Your task to perform on an android device: turn off picture-in-picture Image 0: 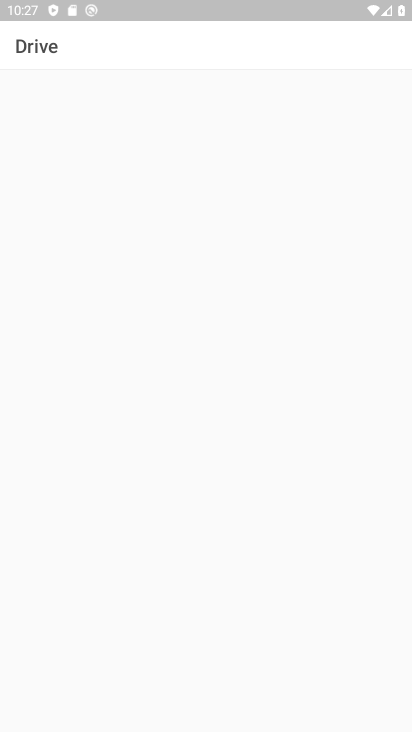
Step 0: press home button
Your task to perform on an android device: turn off picture-in-picture Image 1: 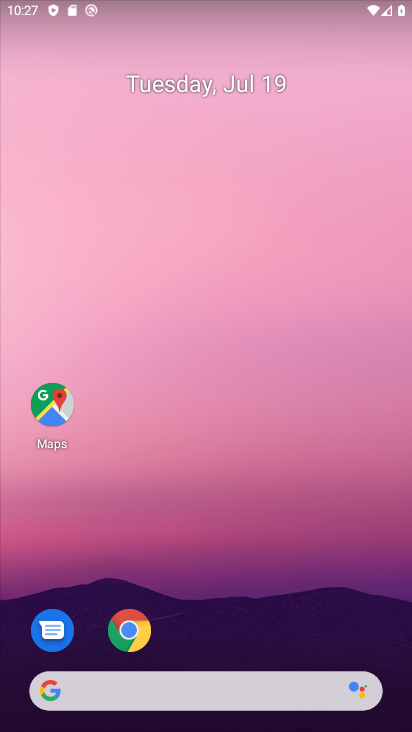
Step 1: click (124, 634)
Your task to perform on an android device: turn off picture-in-picture Image 2: 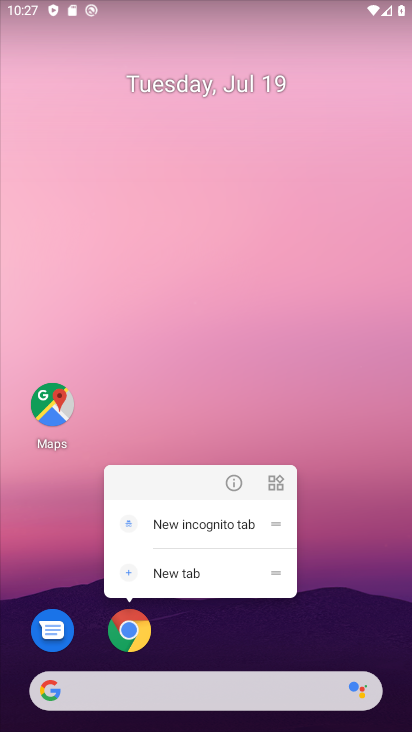
Step 2: click (232, 477)
Your task to perform on an android device: turn off picture-in-picture Image 3: 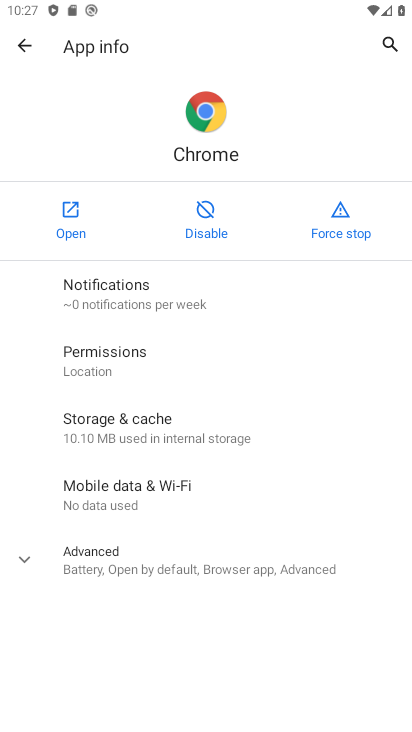
Step 3: click (110, 565)
Your task to perform on an android device: turn off picture-in-picture Image 4: 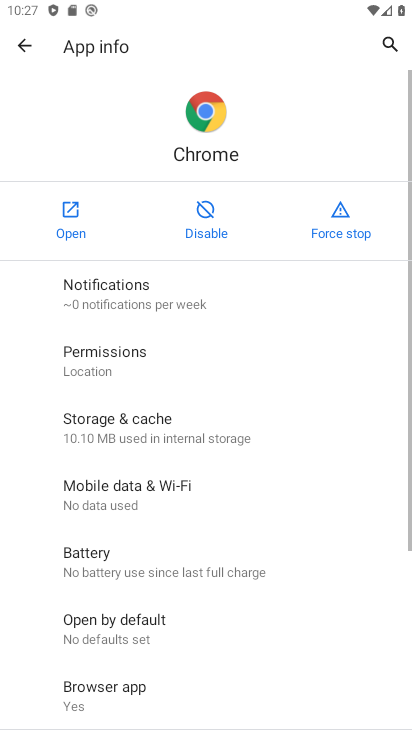
Step 4: drag from (140, 689) to (82, 256)
Your task to perform on an android device: turn off picture-in-picture Image 5: 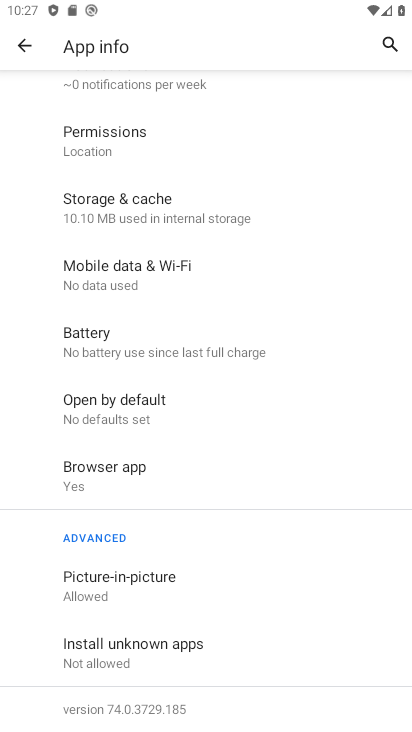
Step 5: drag from (112, 708) to (108, 264)
Your task to perform on an android device: turn off picture-in-picture Image 6: 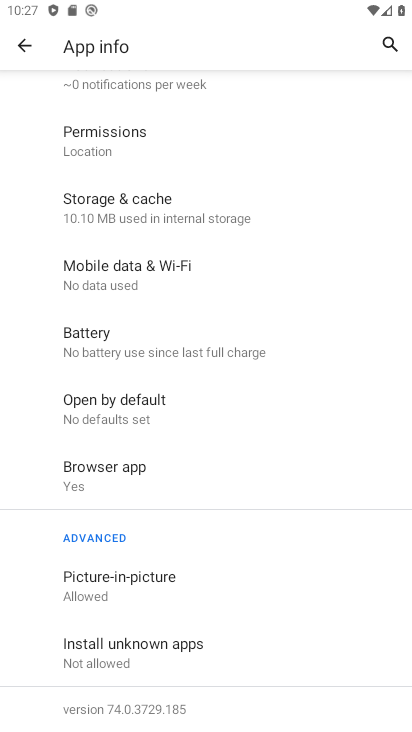
Step 6: click (122, 586)
Your task to perform on an android device: turn off picture-in-picture Image 7: 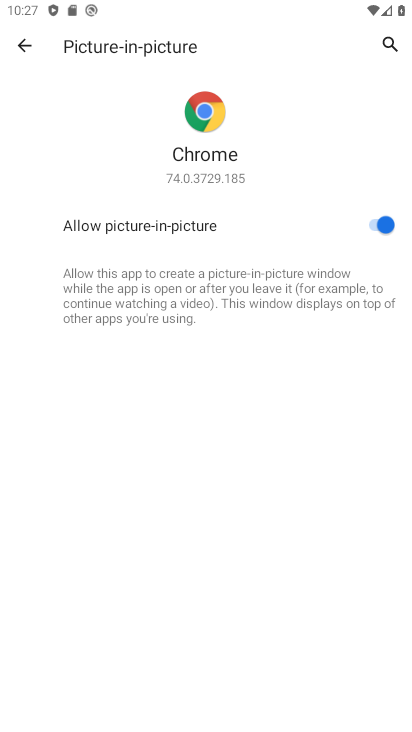
Step 7: click (372, 223)
Your task to perform on an android device: turn off picture-in-picture Image 8: 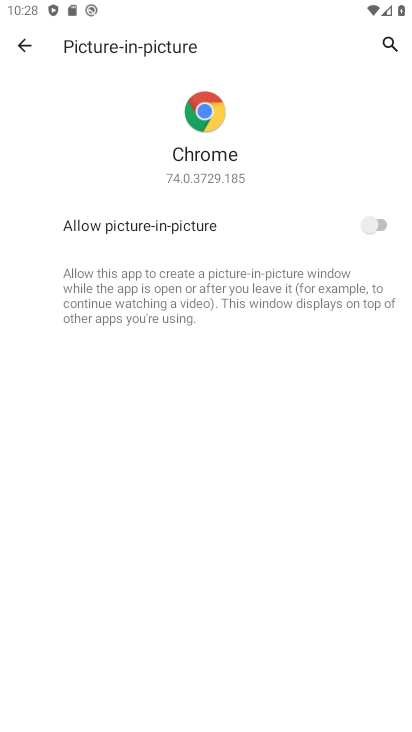
Step 8: task complete